Your task to perform on an android device: Open notification settings Image 0: 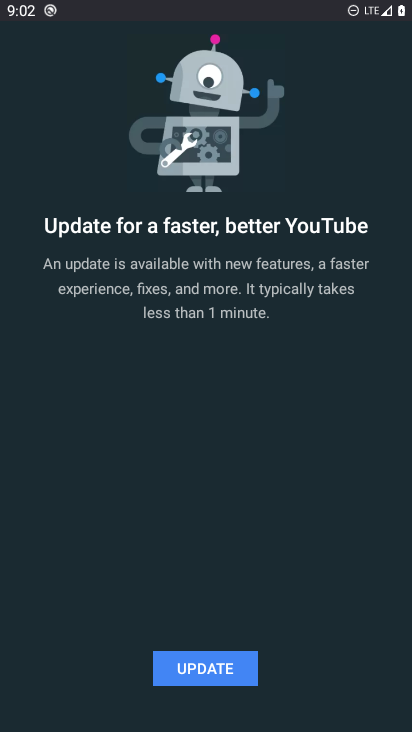
Step 0: task impossible